Your task to perform on an android device: Go to notification settings Image 0: 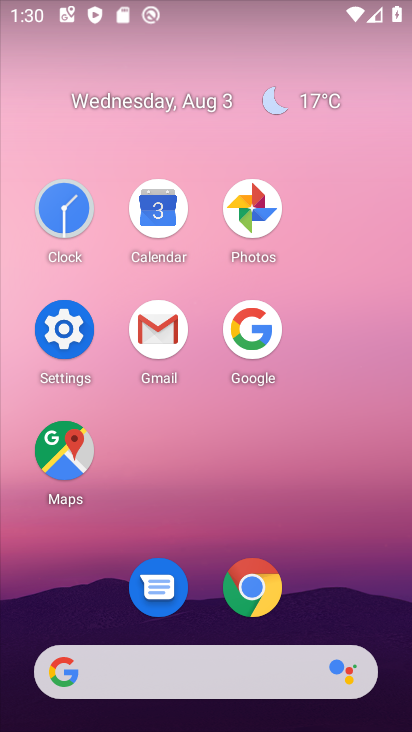
Step 0: click (76, 322)
Your task to perform on an android device: Go to notification settings Image 1: 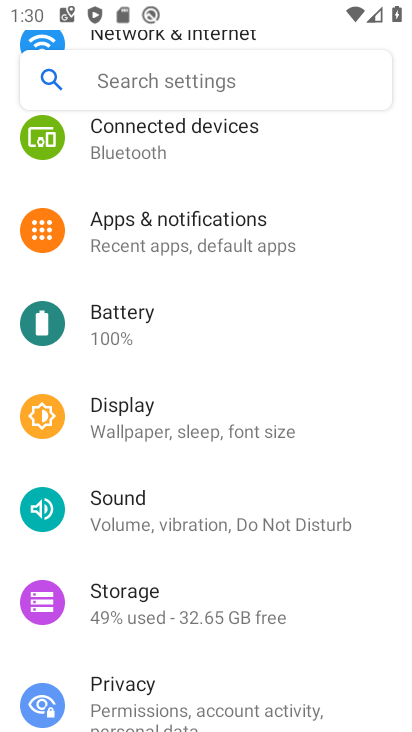
Step 1: task complete